Your task to perform on an android device: change keyboard looks Image 0: 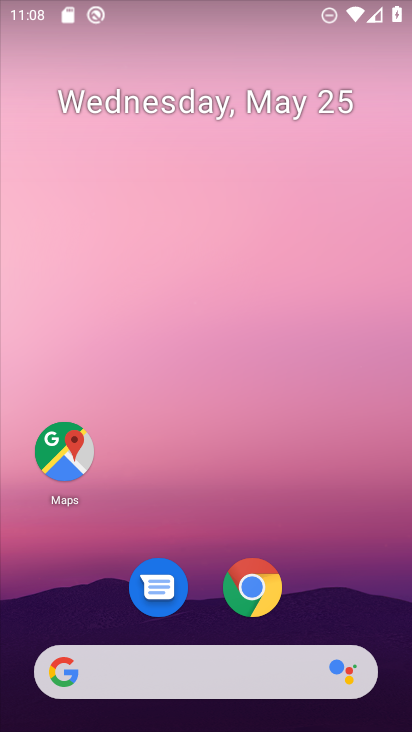
Step 0: drag from (294, 526) to (207, 21)
Your task to perform on an android device: change keyboard looks Image 1: 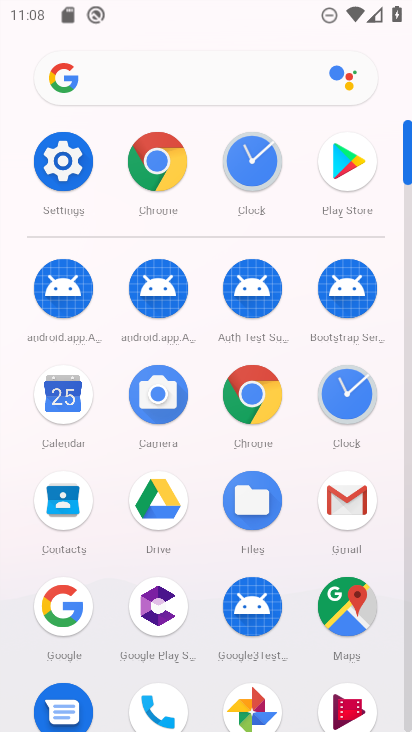
Step 1: drag from (3, 543) to (4, 177)
Your task to perform on an android device: change keyboard looks Image 2: 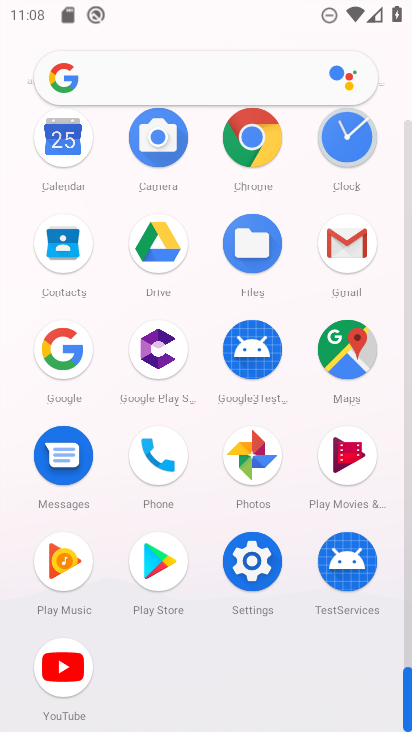
Step 2: click (249, 561)
Your task to perform on an android device: change keyboard looks Image 3: 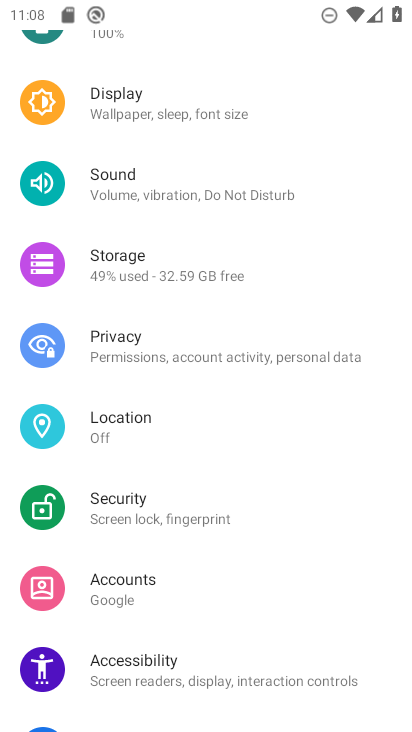
Step 3: drag from (237, 557) to (238, 166)
Your task to perform on an android device: change keyboard looks Image 4: 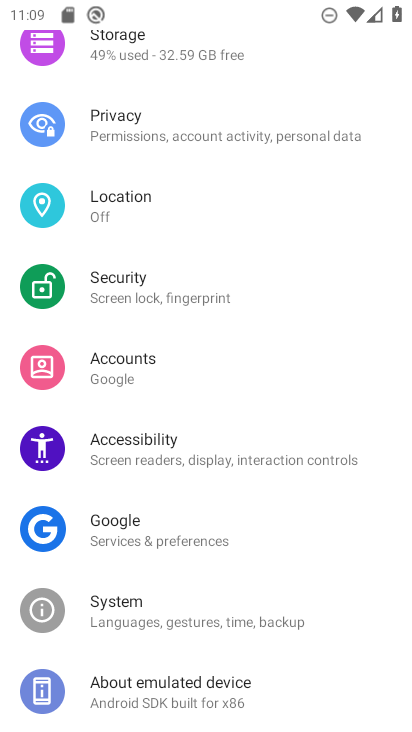
Step 4: click (205, 614)
Your task to perform on an android device: change keyboard looks Image 5: 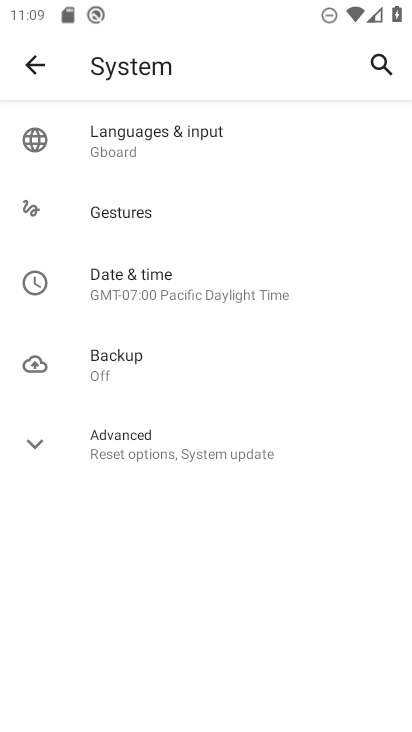
Step 5: click (52, 441)
Your task to perform on an android device: change keyboard looks Image 6: 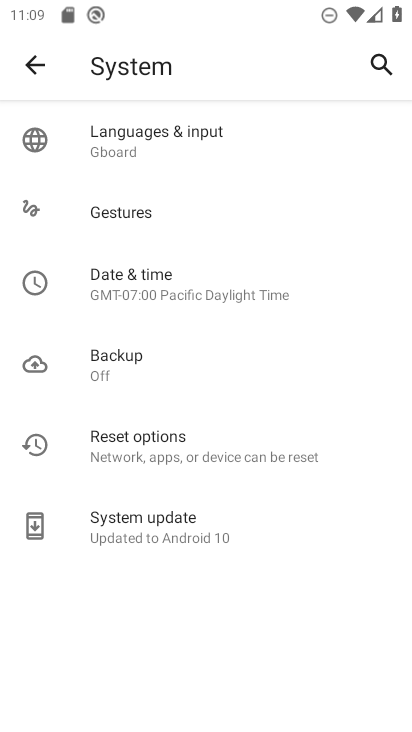
Step 6: click (167, 150)
Your task to perform on an android device: change keyboard looks Image 7: 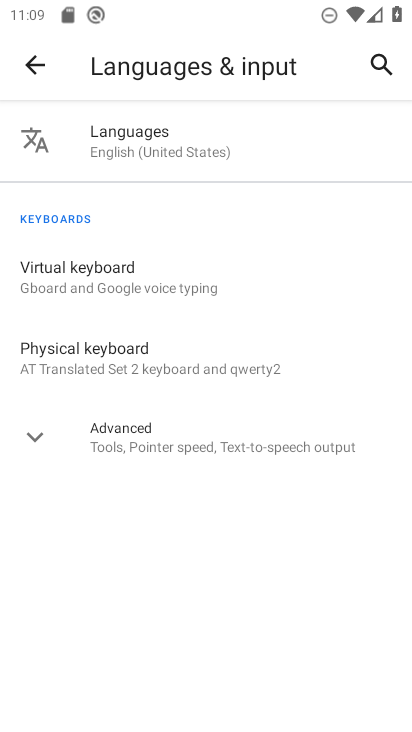
Step 7: click (65, 431)
Your task to perform on an android device: change keyboard looks Image 8: 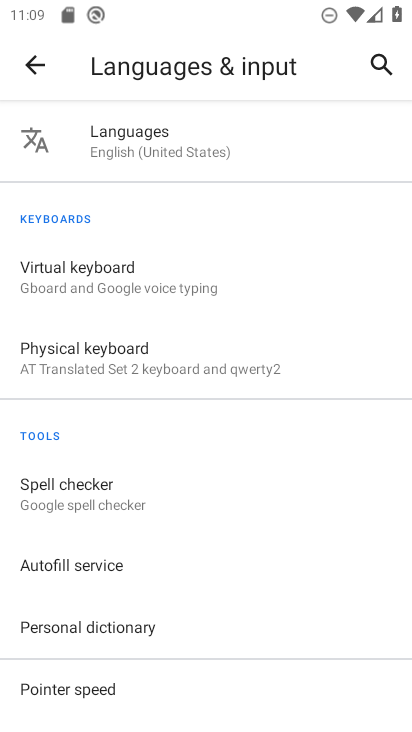
Step 8: drag from (179, 653) to (288, 212)
Your task to perform on an android device: change keyboard looks Image 9: 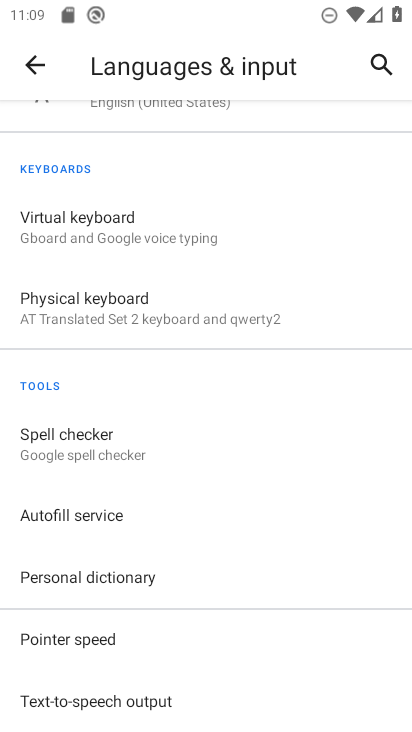
Step 9: click (159, 219)
Your task to perform on an android device: change keyboard looks Image 10: 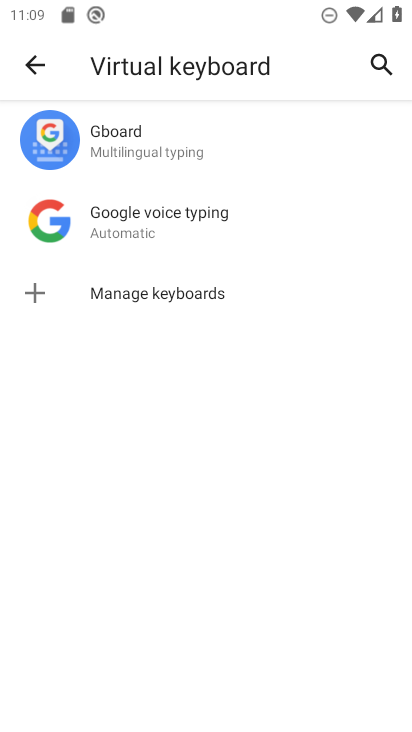
Step 10: click (164, 152)
Your task to perform on an android device: change keyboard looks Image 11: 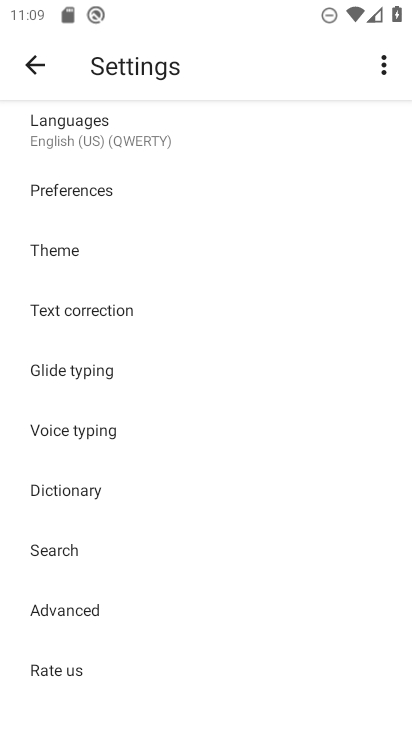
Step 11: click (63, 250)
Your task to perform on an android device: change keyboard looks Image 12: 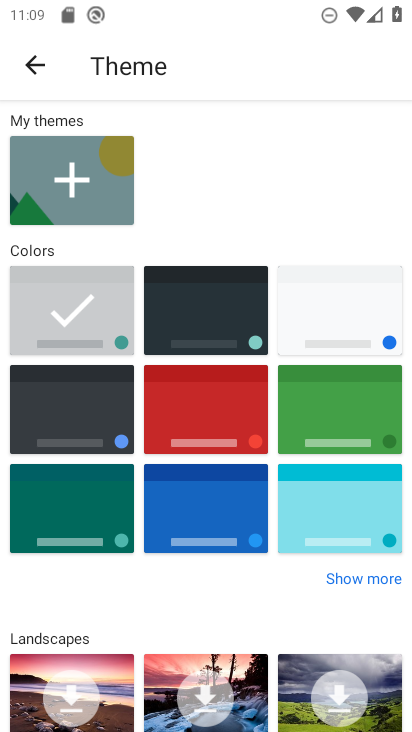
Step 12: click (228, 325)
Your task to perform on an android device: change keyboard looks Image 13: 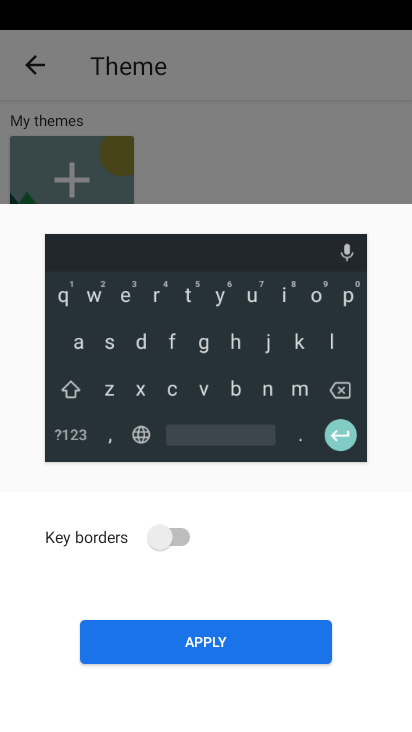
Step 13: click (214, 653)
Your task to perform on an android device: change keyboard looks Image 14: 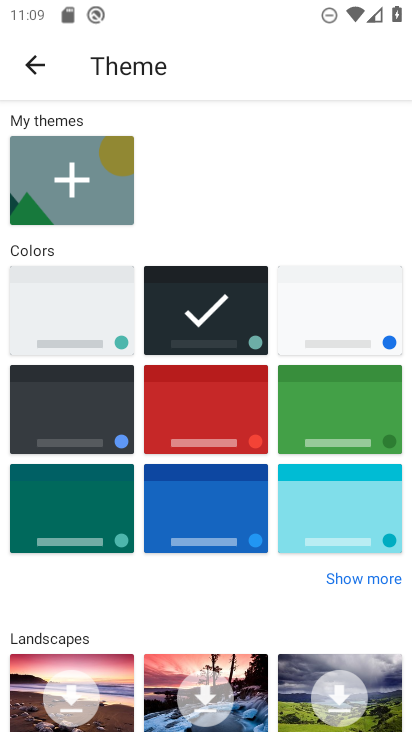
Step 14: task complete